Your task to perform on an android device: Search for seafood restaurants on Google Maps Image 0: 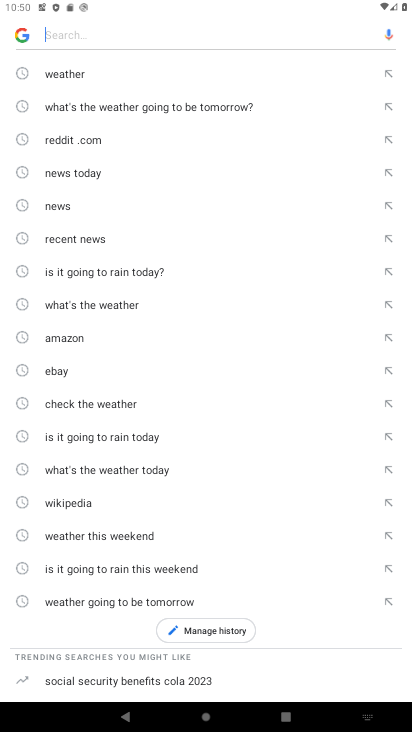
Step 0: press home button
Your task to perform on an android device: Search for seafood restaurants on Google Maps Image 1: 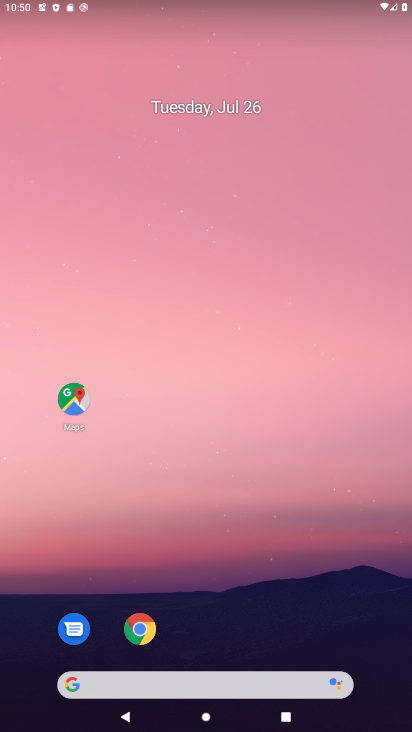
Step 1: click (67, 408)
Your task to perform on an android device: Search for seafood restaurants on Google Maps Image 2: 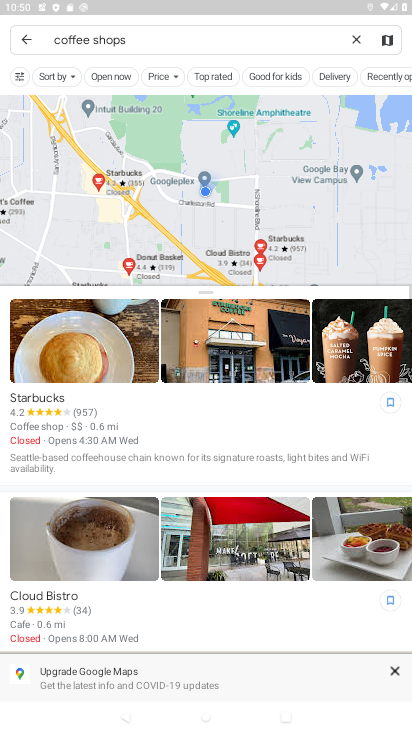
Step 2: click (24, 40)
Your task to perform on an android device: Search for seafood restaurants on Google Maps Image 3: 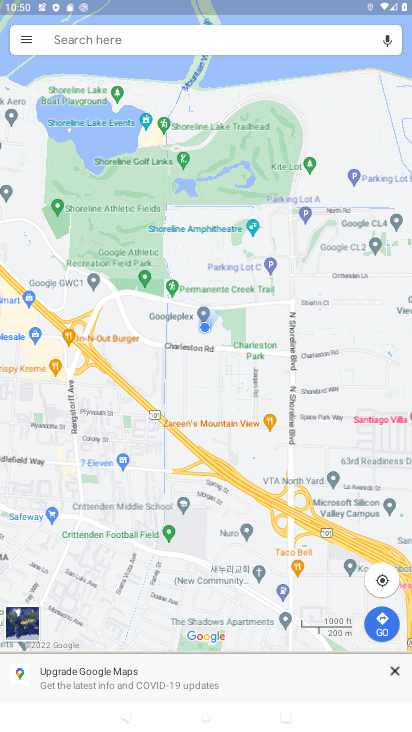
Step 3: click (122, 41)
Your task to perform on an android device: Search for seafood restaurants on Google Maps Image 4: 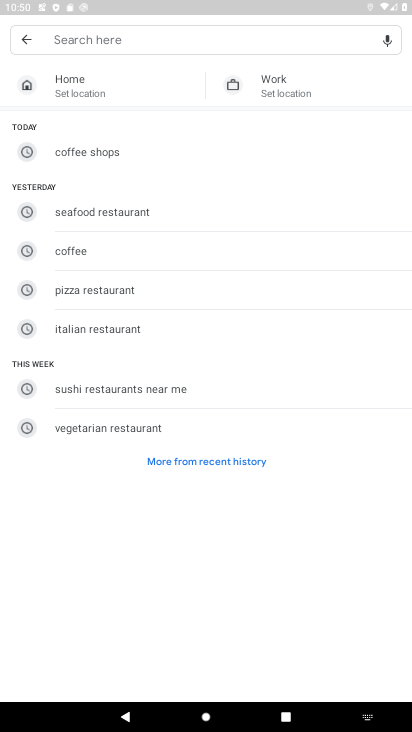
Step 4: click (124, 213)
Your task to perform on an android device: Search for seafood restaurants on Google Maps Image 5: 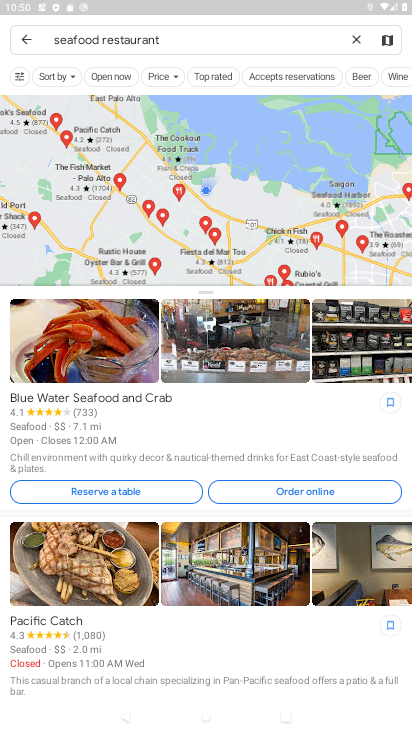
Step 5: task complete